Your task to perform on an android device: change text size in settings app Image 0: 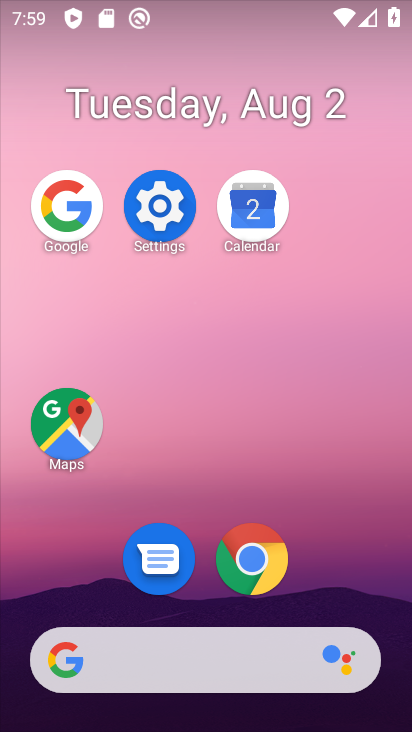
Step 0: click (149, 225)
Your task to perform on an android device: change text size in settings app Image 1: 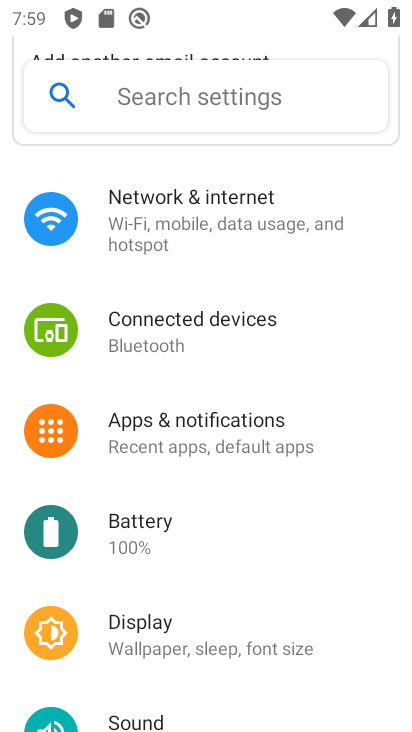
Step 1: click (301, 660)
Your task to perform on an android device: change text size in settings app Image 2: 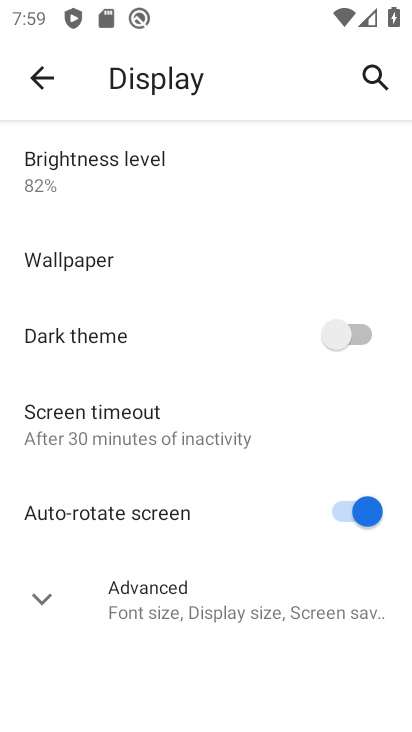
Step 2: click (215, 629)
Your task to perform on an android device: change text size in settings app Image 3: 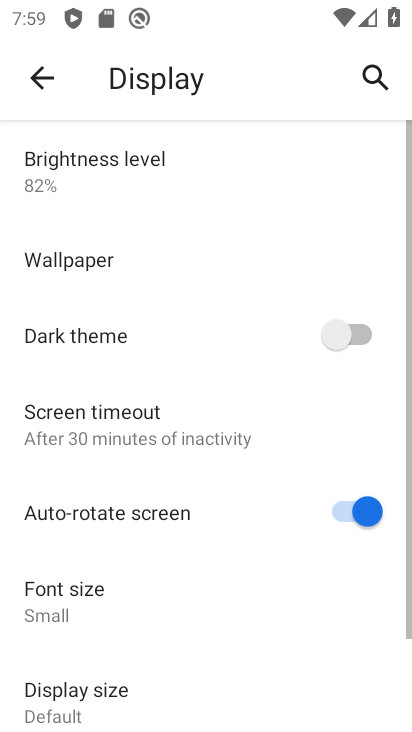
Step 3: drag from (215, 629) to (176, 278)
Your task to perform on an android device: change text size in settings app Image 4: 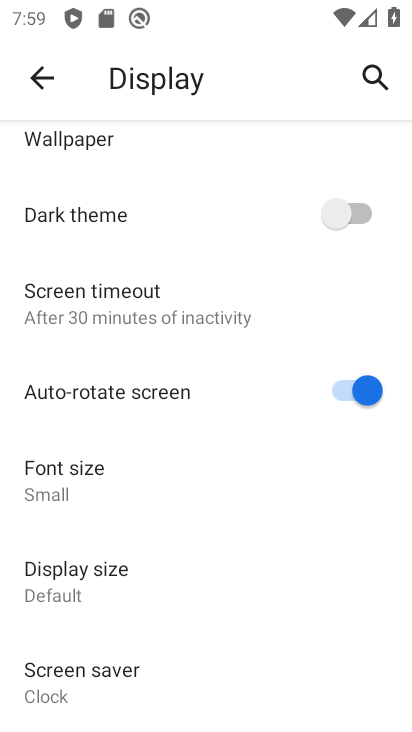
Step 4: click (73, 494)
Your task to perform on an android device: change text size in settings app Image 5: 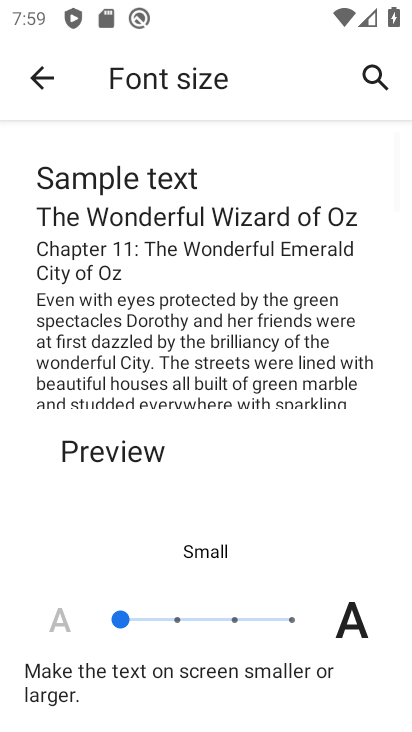
Step 5: click (152, 624)
Your task to perform on an android device: change text size in settings app Image 6: 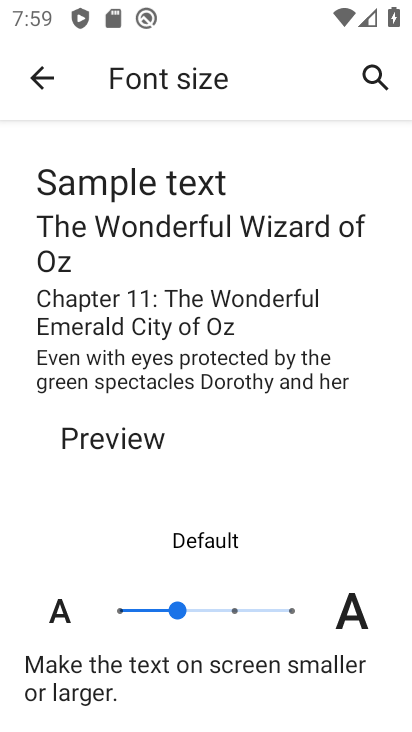
Step 6: task complete